Your task to perform on an android device: Search for vegetarian restaurants on Maps Image 0: 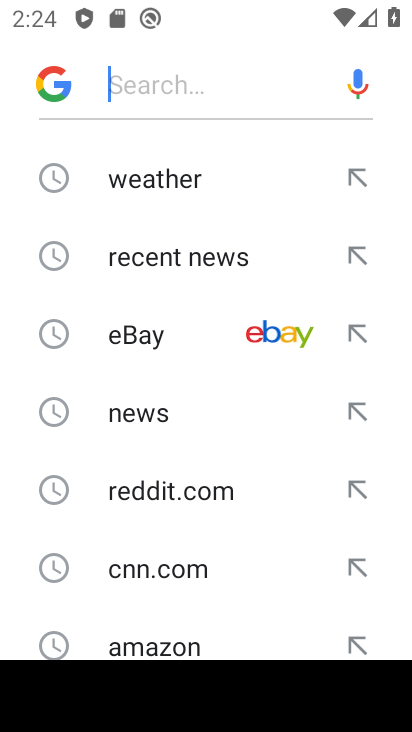
Step 0: press home button
Your task to perform on an android device: Search for vegetarian restaurants on Maps Image 1: 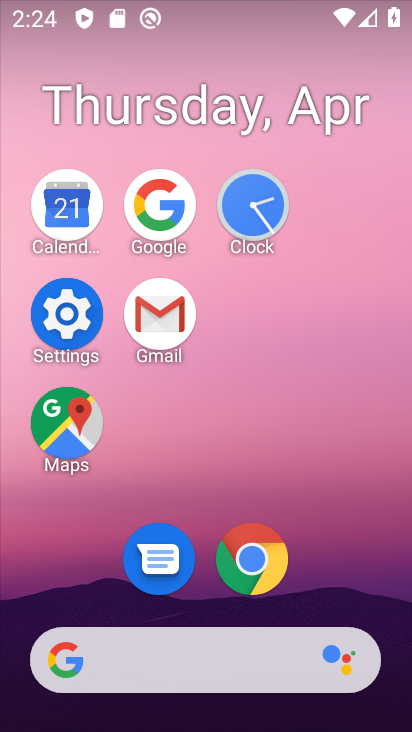
Step 1: click (76, 416)
Your task to perform on an android device: Search for vegetarian restaurants on Maps Image 2: 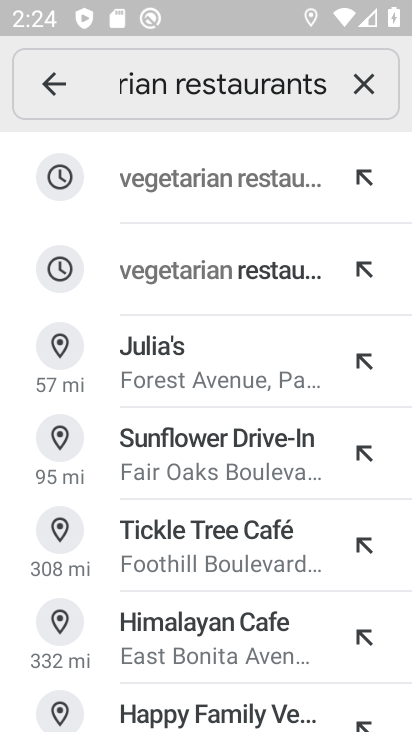
Step 2: task complete